Your task to perform on an android device: add a contact Image 0: 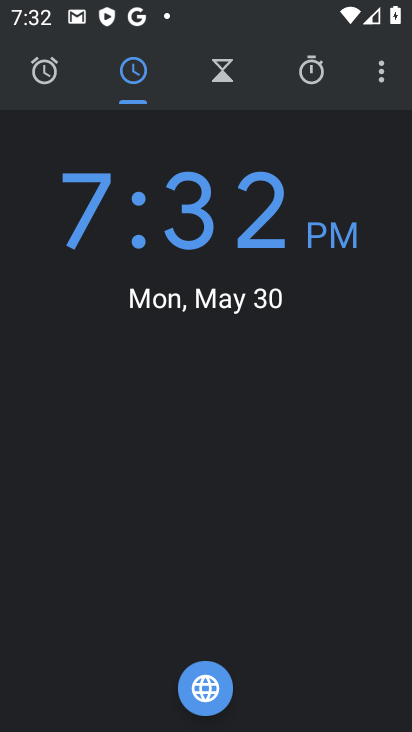
Step 0: press home button
Your task to perform on an android device: add a contact Image 1: 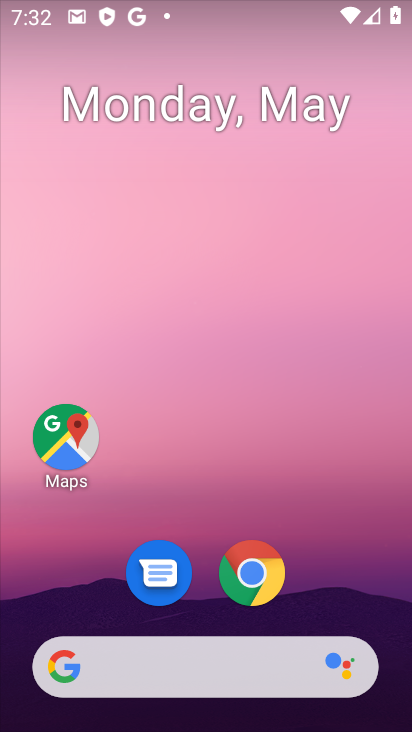
Step 1: drag from (207, 594) to (243, 54)
Your task to perform on an android device: add a contact Image 2: 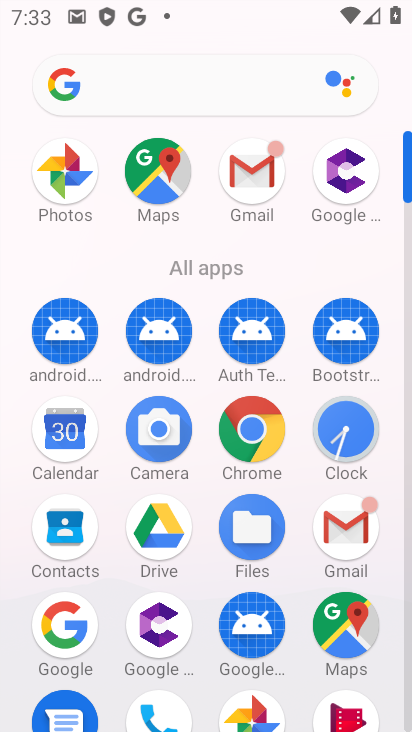
Step 2: click (69, 541)
Your task to perform on an android device: add a contact Image 3: 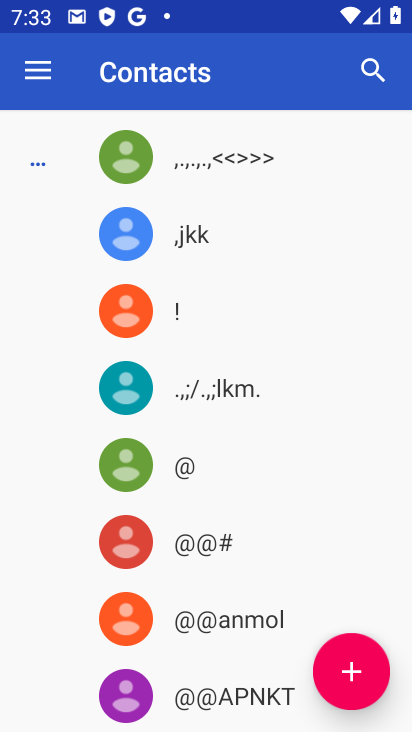
Step 3: click (354, 674)
Your task to perform on an android device: add a contact Image 4: 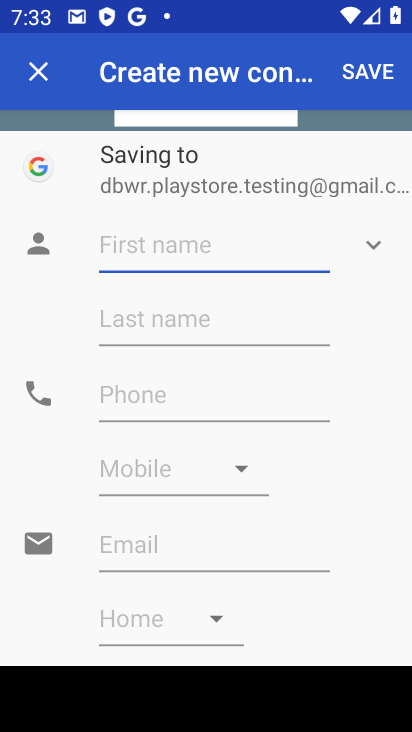
Step 4: type "hgdfsf"
Your task to perform on an android device: add a contact Image 5: 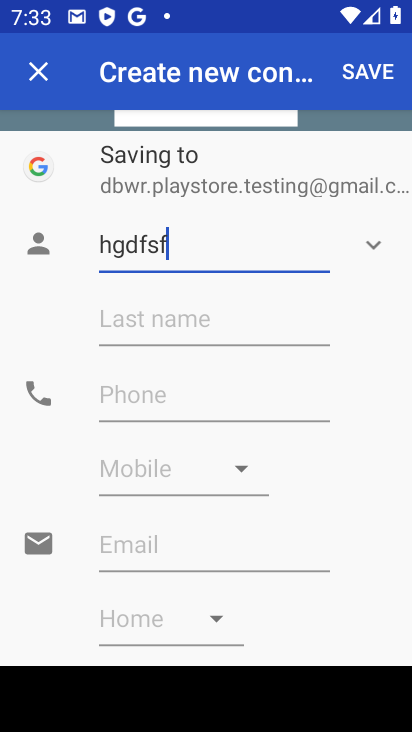
Step 5: click (206, 403)
Your task to perform on an android device: add a contact Image 6: 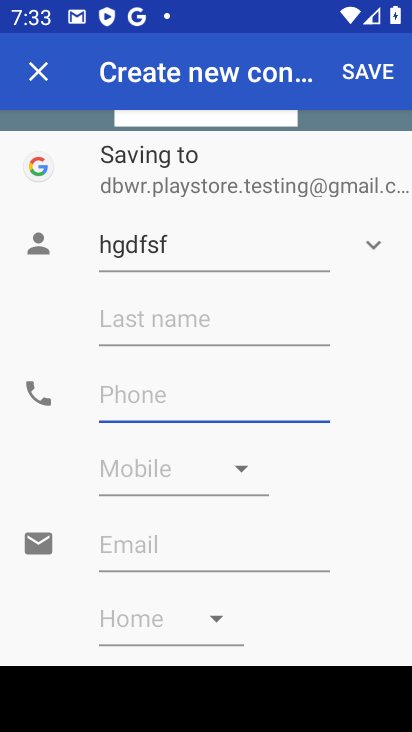
Step 6: type "987687685"
Your task to perform on an android device: add a contact Image 7: 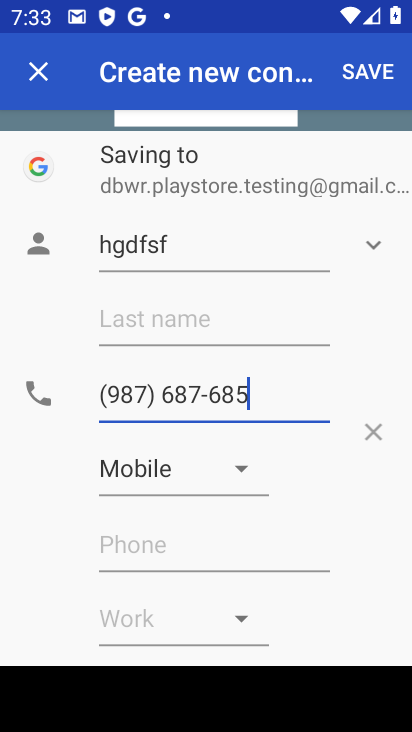
Step 7: type "6"
Your task to perform on an android device: add a contact Image 8: 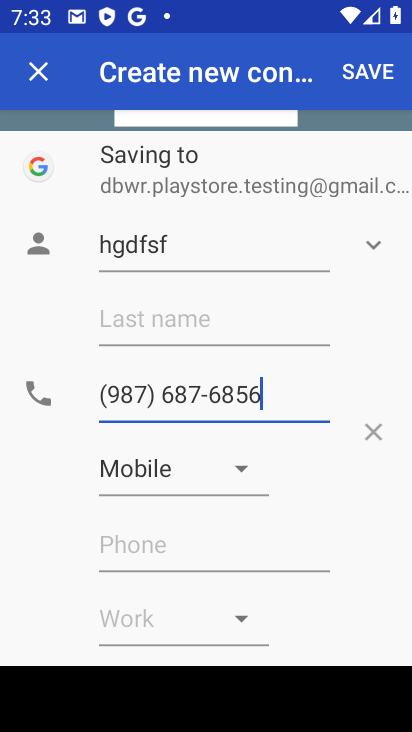
Step 8: click (359, 75)
Your task to perform on an android device: add a contact Image 9: 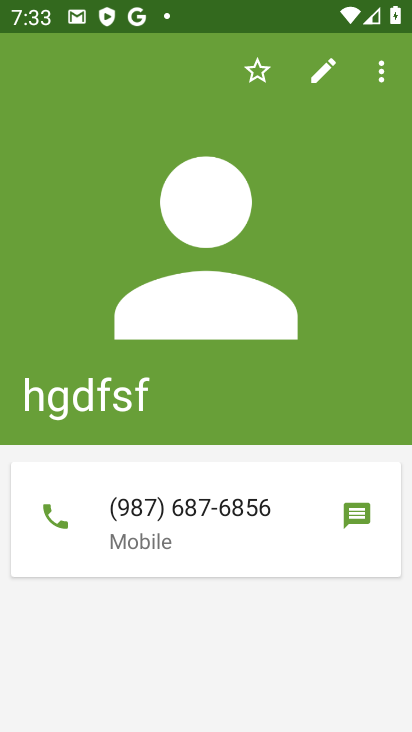
Step 9: task complete